Your task to perform on an android device: Show the shopping cart on bestbuy.com. Search for "sony triple a" on bestbuy.com, select the first entry, add it to the cart, then select checkout. Image 0: 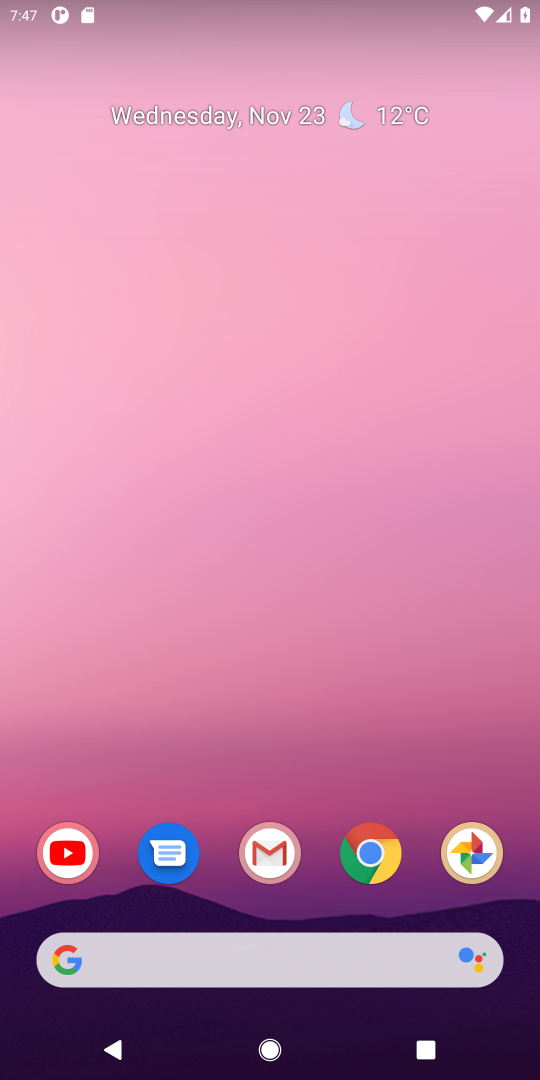
Step 0: click (374, 863)
Your task to perform on an android device: Show the shopping cart on bestbuy.com. Search for "sony triple a" on bestbuy.com, select the first entry, add it to the cart, then select checkout. Image 1: 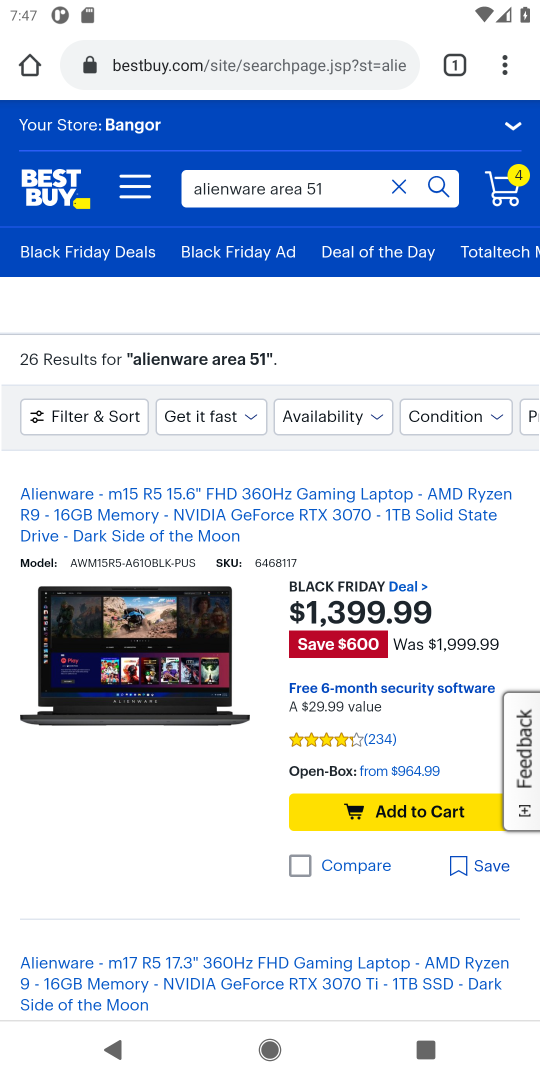
Step 1: click (506, 191)
Your task to perform on an android device: Show the shopping cart on bestbuy.com. Search for "sony triple a" on bestbuy.com, select the first entry, add it to the cart, then select checkout. Image 2: 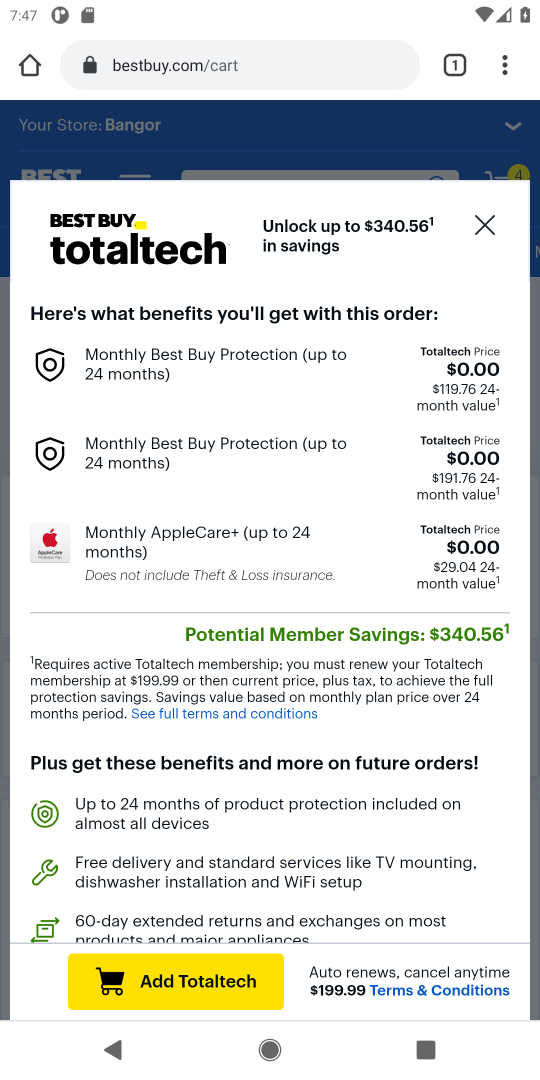
Step 2: click (489, 231)
Your task to perform on an android device: Show the shopping cart on bestbuy.com. Search for "sony triple a" on bestbuy.com, select the first entry, add it to the cart, then select checkout. Image 3: 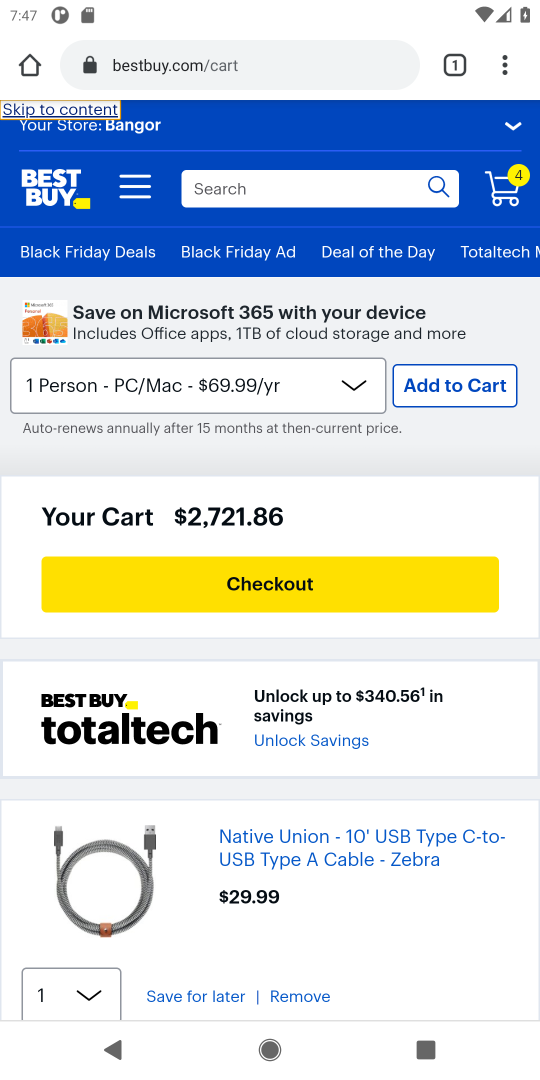
Step 3: click (283, 197)
Your task to perform on an android device: Show the shopping cart on bestbuy.com. Search for "sony triple a" on bestbuy.com, select the first entry, add it to the cart, then select checkout. Image 4: 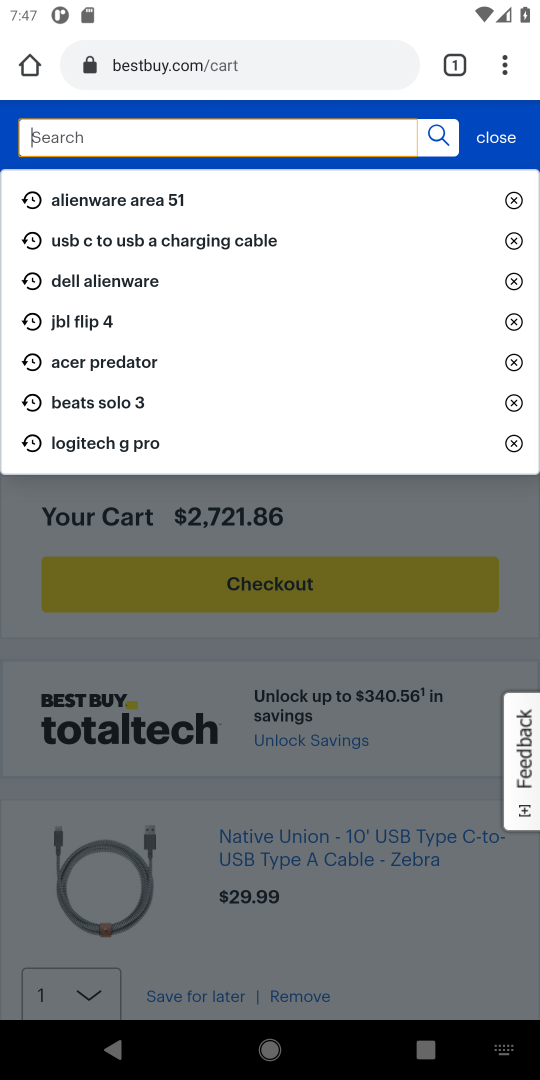
Step 4: type "sony triple a"
Your task to perform on an android device: Show the shopping cart on bestbuy.com. Search for "sony triple a" on bestbuy.com, select the first entry, add it to the cart, then select checkout. Image 5: 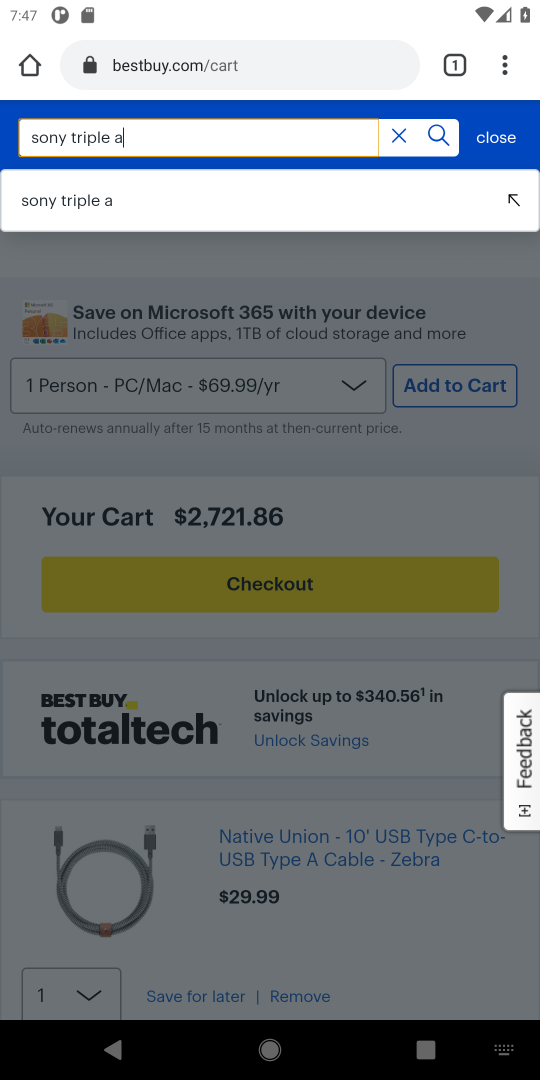
Step 5: click (66, 197)
Your task to perform on an android device: Show the shopping cart on bestbuy.com. Search for "sony triple a" on bestbuy.com, select the first entry, add it to the cart, then select checkout. Image 6: 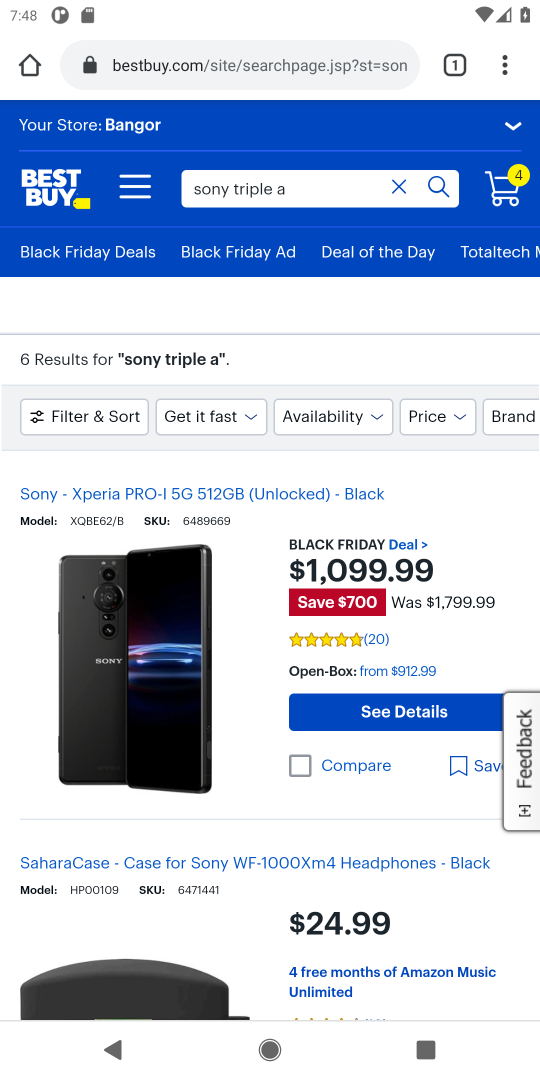
Step 6: task complete